Your task to perform on an android device: turn off notifications in google photos Image 0: 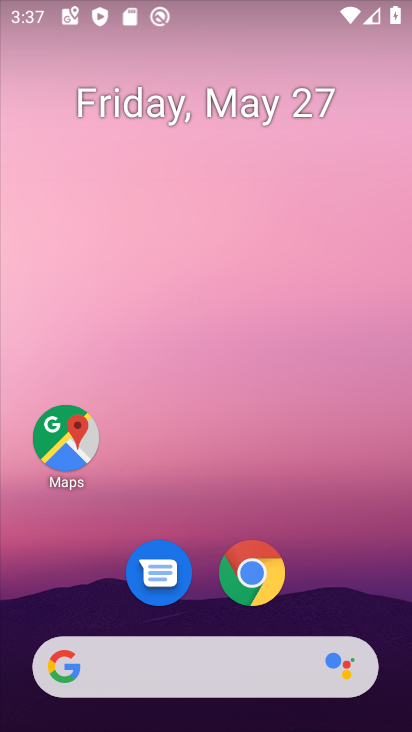
Step 0: drag from (344, 570) to (387, 23)
Your task to perform on an android device: turn off notifications in google photos Image 1: 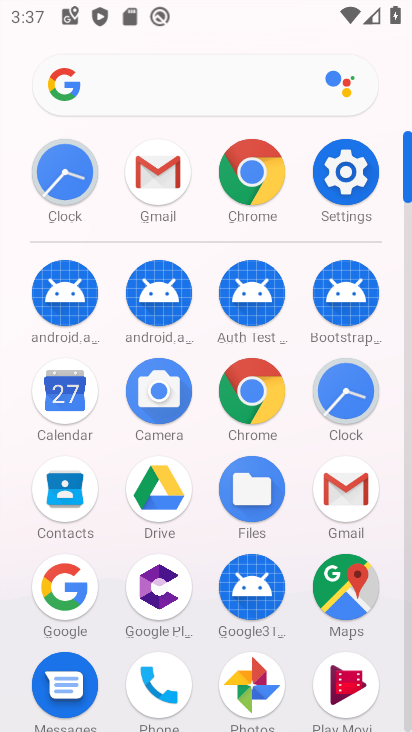
Step 1: click (252, 676)
Your task to perform on an android device: turn off notifications in google photos Image 2: 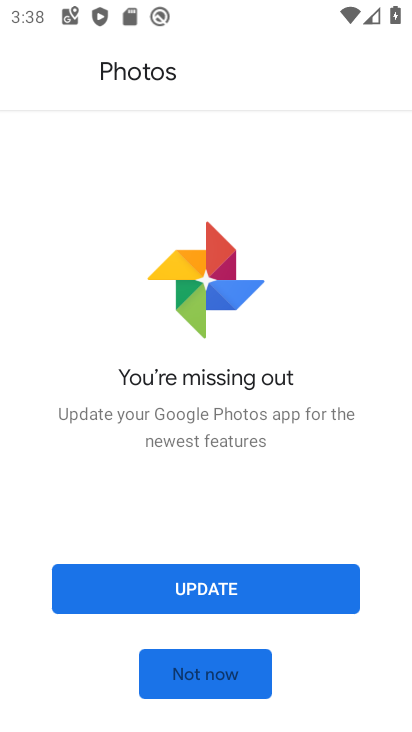
Step 2: click (198, 669)
Your task to perform on an android device: turn off notifications in google photos Image 3: 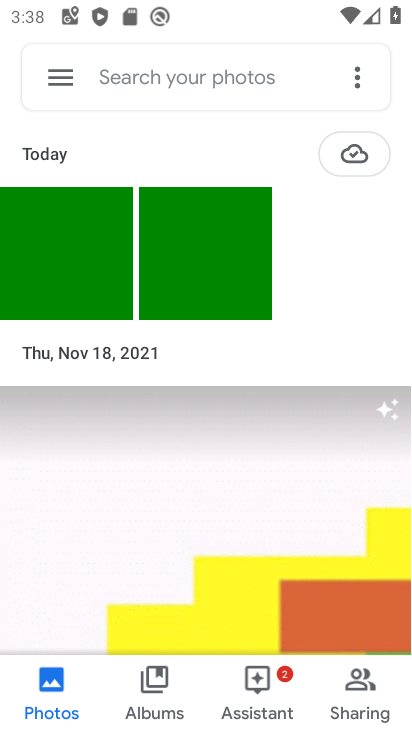
Step 3: click (63, 73)
Your task to perform on an android device: turn off notifications in google photos Image 4: 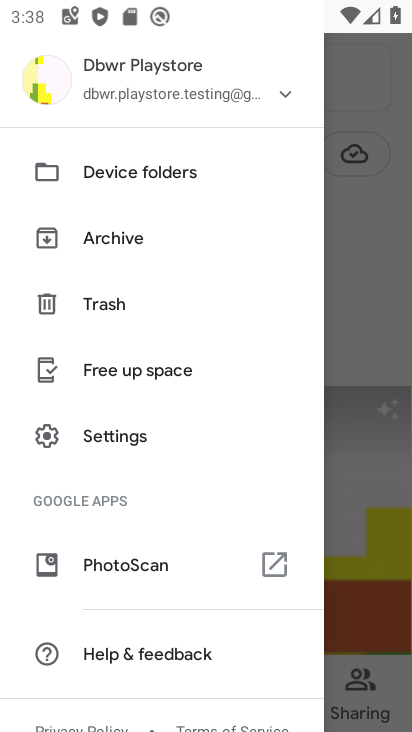
Step 4: click (119, 425)
Your task to perform on an android device: turn off notifications in google photos Image 5: 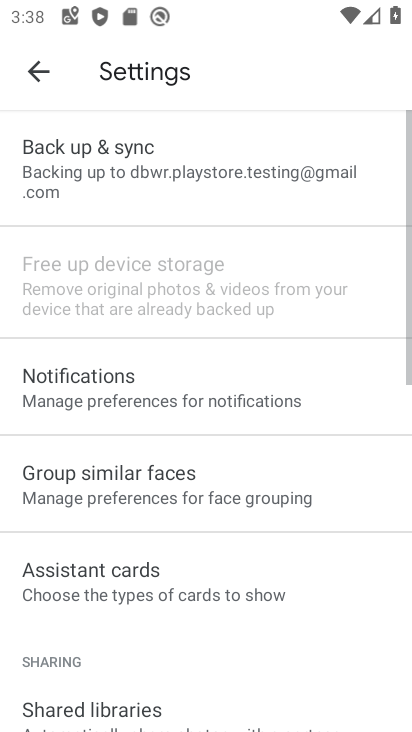
Step 5: click (164, 379)
Your task to perform on an android device: turn off notifications in google photos Image 6: 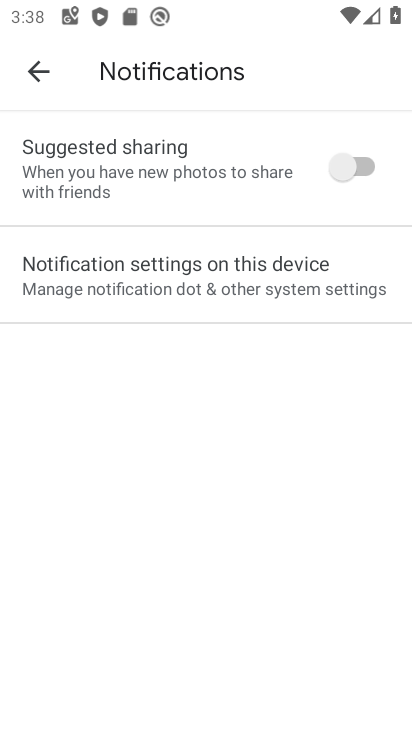
Step 6: click (223, 270)
Your task to perform on an android device: turn off notifications in google photos Image 7: 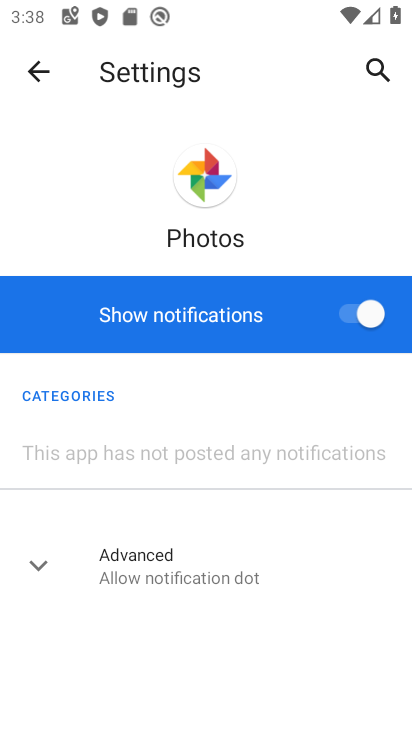
Step 7: click (354, 313)
Your task to perform on an android device: turn off notifications in google photos Image 8: 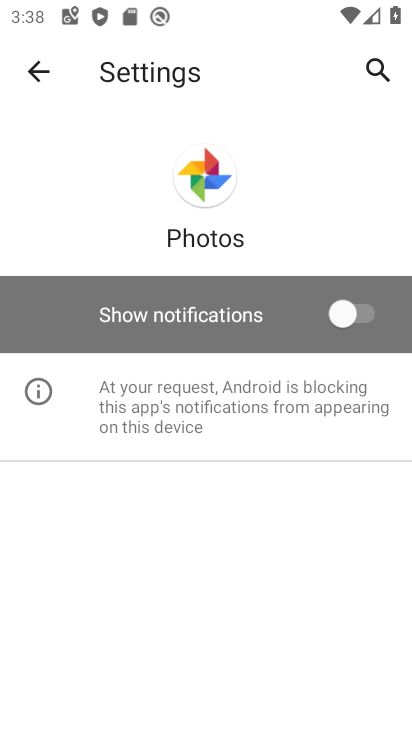
Step 8: task complete